Your task to perform on an android device: Go to Android settings Image 0: 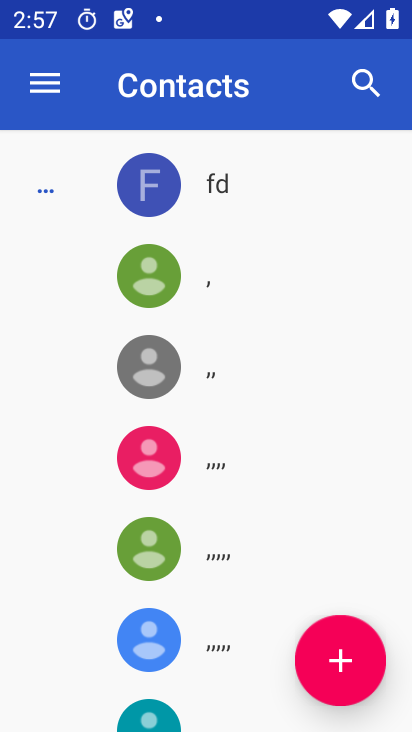
Step 0: press home button
Your task to perform on an android device: Go to Android settings Image 1: 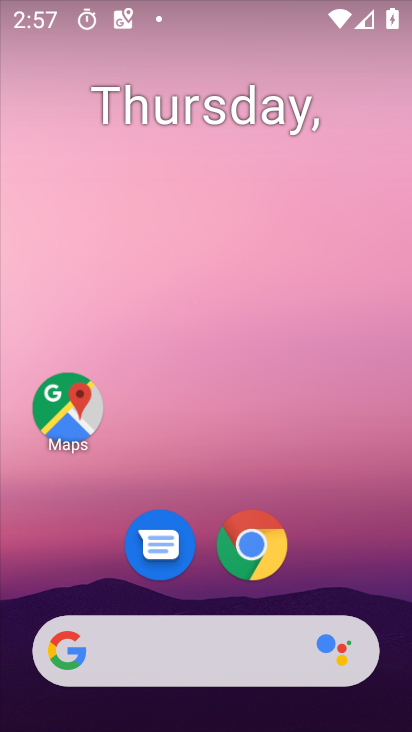
Step 1: drag from (212, 712) to (222, 159)
Your task to perform on an android device: Go to Android settings Image 2: 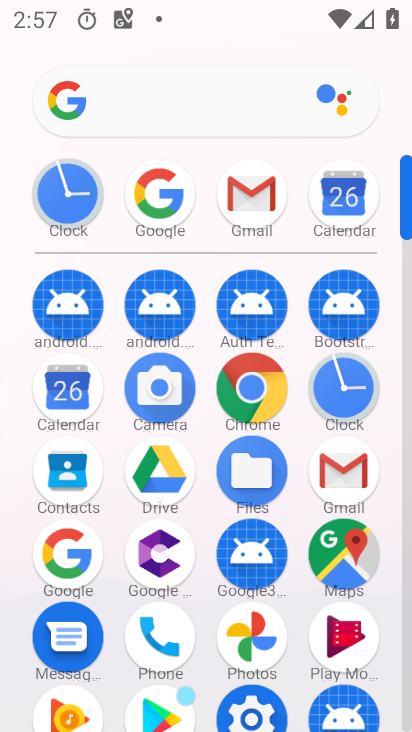
Step 2: drag from (196, 677) to (198, 256)
Your task to perform on an android device: Go to Android settings Image 3: 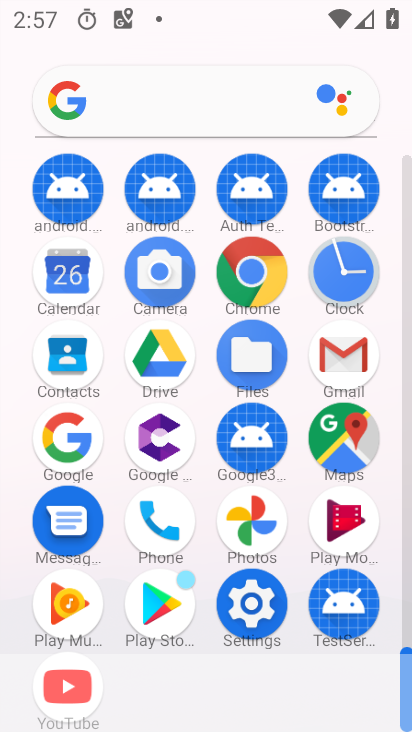
Step 3: click (244, 603)
Your task to perform on an android device: Go to Android settings Image 4: 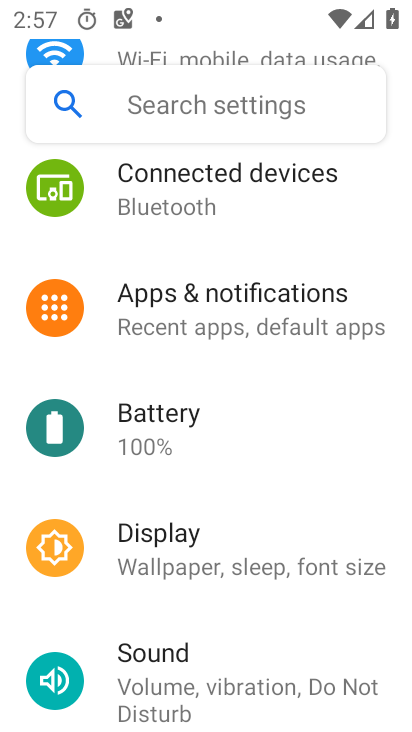
Step 4: task complete